Your task to perform on an android device: Open internet settings Image 0: 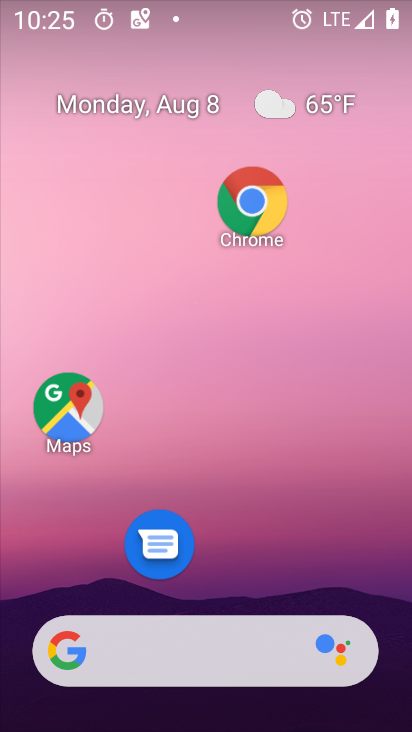
Step 0: drag from (228, 588) to (205, 89)
Your task to perform on an android device: Open internet settings Image 1: 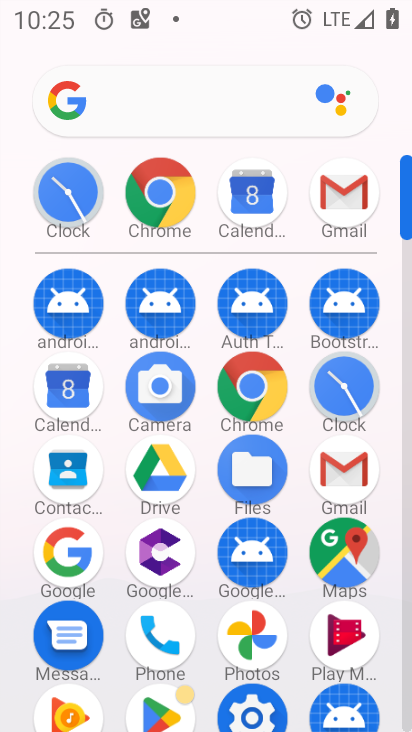
Step 1: click (254, 702)
Your task to perform on an android device: Open internet settings Image 2: 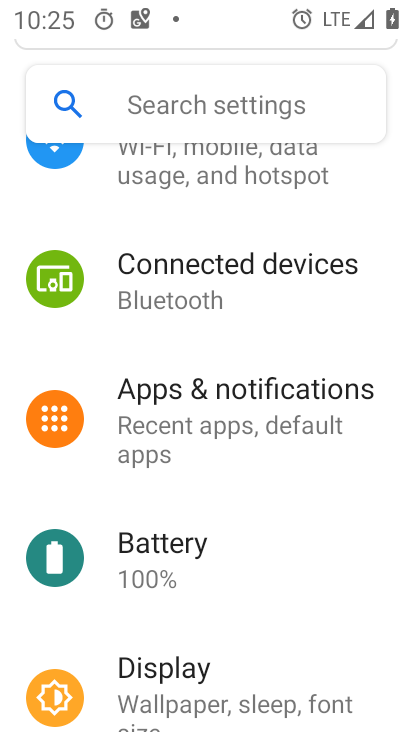
Step 2: drag from (201, 212) to (207, 573)
Your task to perform on an android device: Open internet settings Image 3: 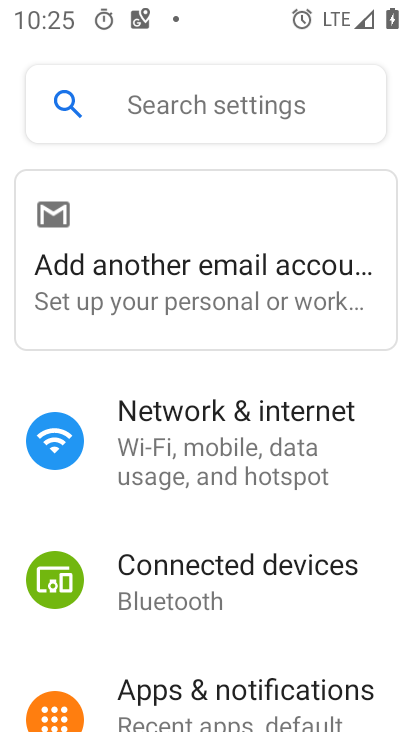
Step 3: click (183, 430)
Your task to perform on an android device: Open internet settings Image 4: 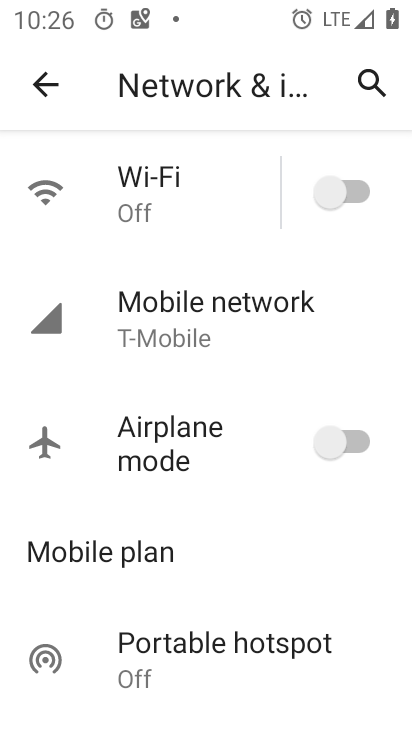
Step 4: task complete